Your task to perform on an android device: Open Google Chrome and click the shortcut for Amazon.com Image 0: 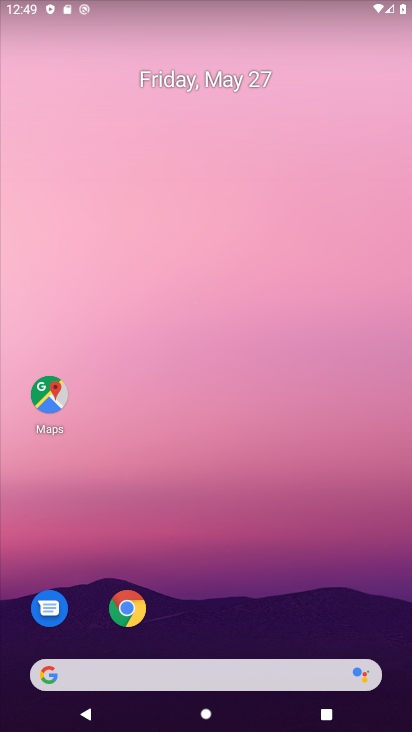
Step 0: click (129, 620)
Your task to perform on an android device: Open Google Chrome and click the shortcut for Amazon.com Image 1: 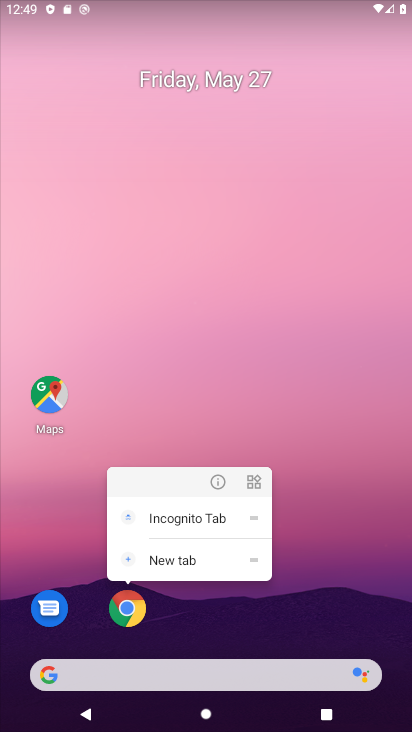
Step 1: click (130, 615)
Your task to perform on an android device: Open Google Chrome and click the shortcut for Amazon.com Image 2: 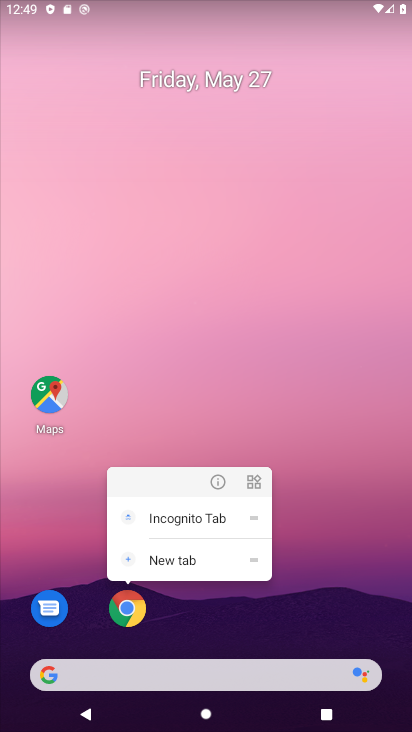
Step 2: click (130, 613)
Your task to perform on an android device: Open Google Chrome and click the shortcut for Amazon.com Image 3: 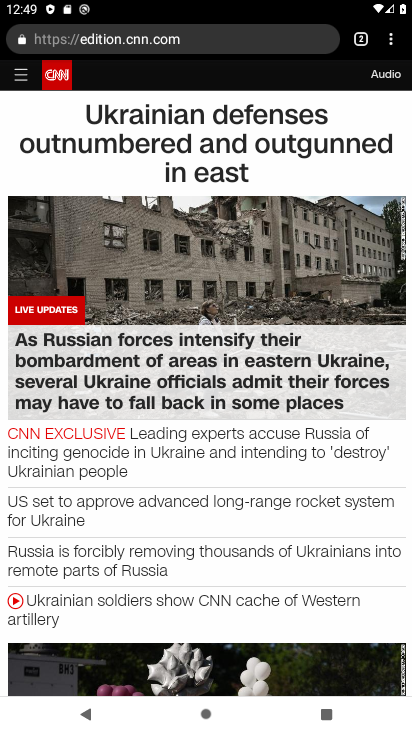
Step 3: drag from (385, 38) to (343, 79)
Your task to perform on an android device: Open Google Chrome and click the shortcut for Amazon.com Image 4: 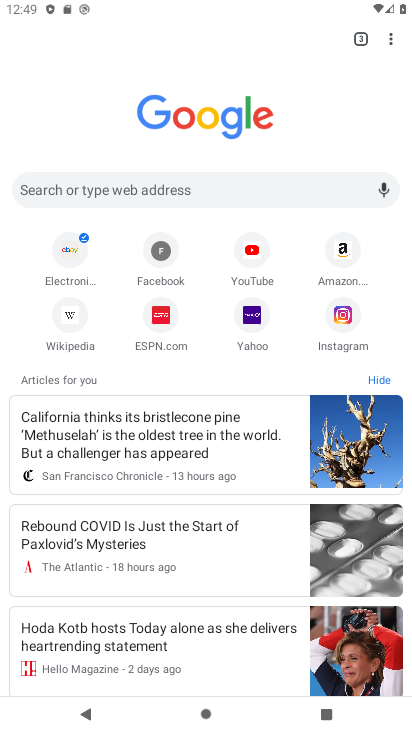
Step 4: click (339, 252)
Your task to perform on an android device: Open Google Chrome and click the shortcut for Amazon.com Image 5: 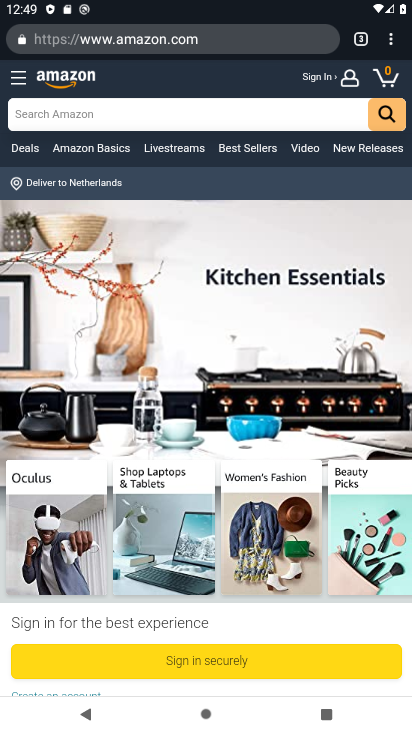
Step 5: task complete